Your task to perform on an android device: Open the map Image 0: 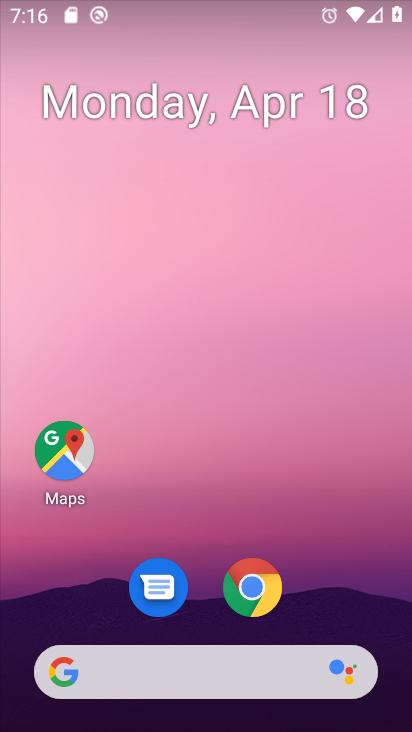
Step 0: click (71, 448)
Your task to perform on an android device: Open the map Image 1: 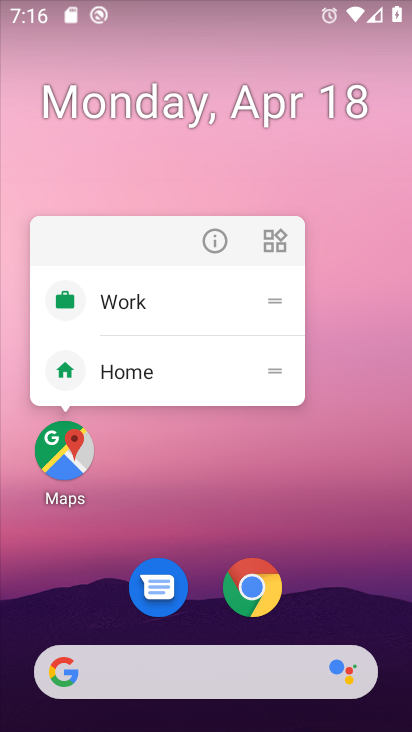
Step 1: click (71, 448)
Your task to perform on an android device: Open the map Image 2: 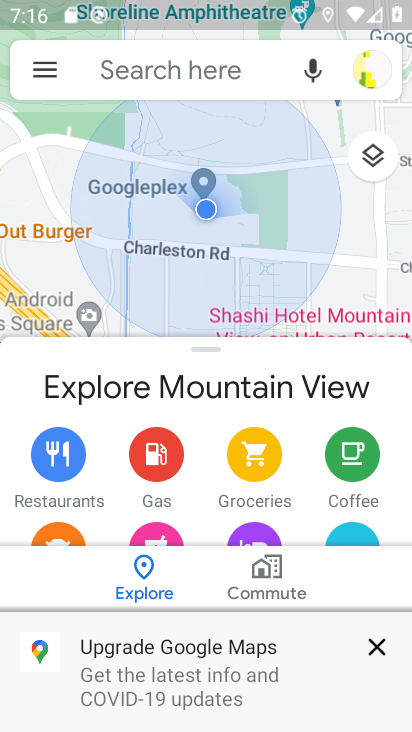
Step 2: task complete